Your task to perform on an android device: clear all cookies in the chrome app Image 0: 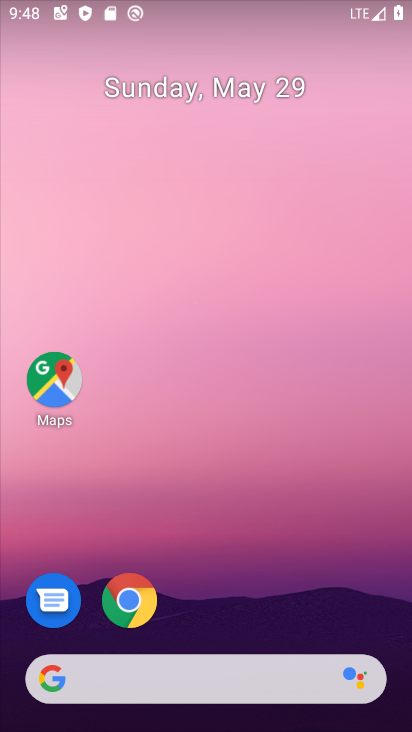
Step 0: drag from (182, 609) to (240, 63)
Your task to perform on an android device: clear all cookies in the chrome app Image 1: 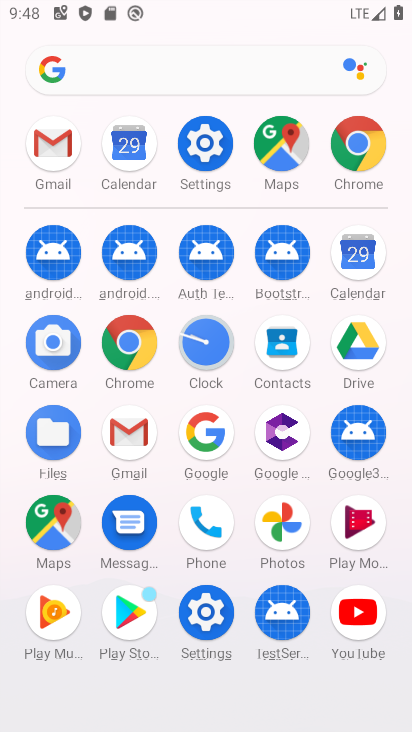
Step 1: click (125, 345)
Your task to perform on an android device: clear all cookies in the chrome app Image 2: 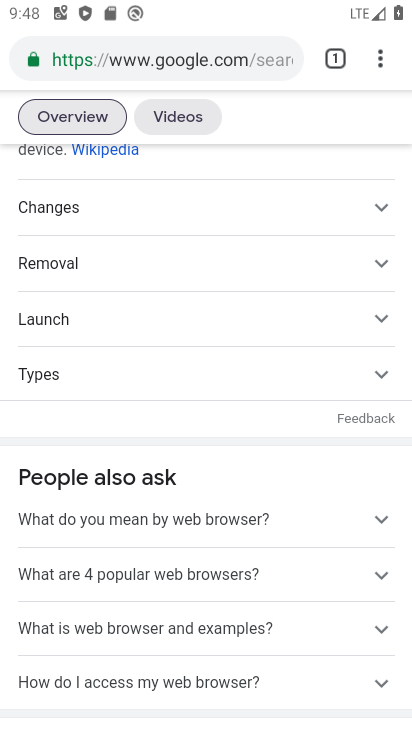
Step 2: drag from (384, 59) to (177, 658)
Your task to perform on an android device: clear all cookies in the chrome app Image 3: 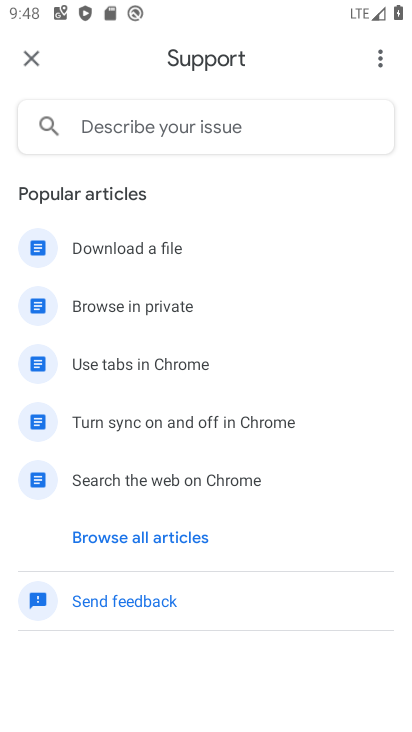
Step 3: press back button
Your task to perform on an android device: clear all cookies in the chrome app Image 4: 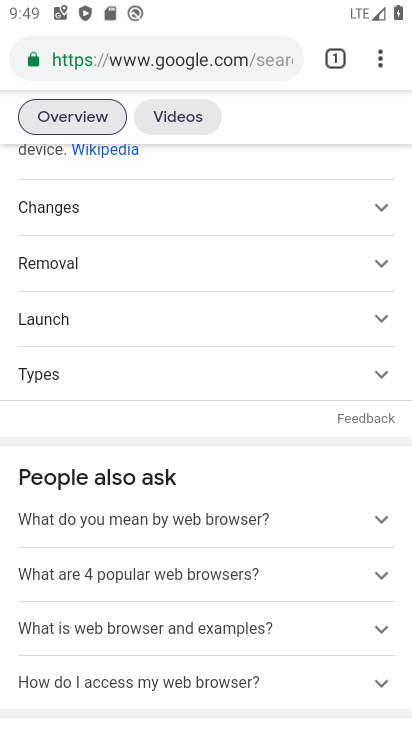
Step 4: drag from (376, 49) to (199, 617)
Your task to perform on an android device: clear all cookies in the chrome app Image 5: 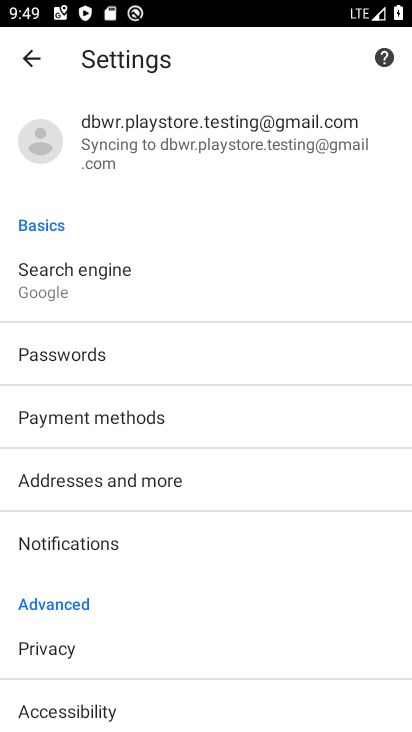
Step 5: click (58, 644)
Your task to perform on an android device: clear all cookies in the chrome app Image 6: 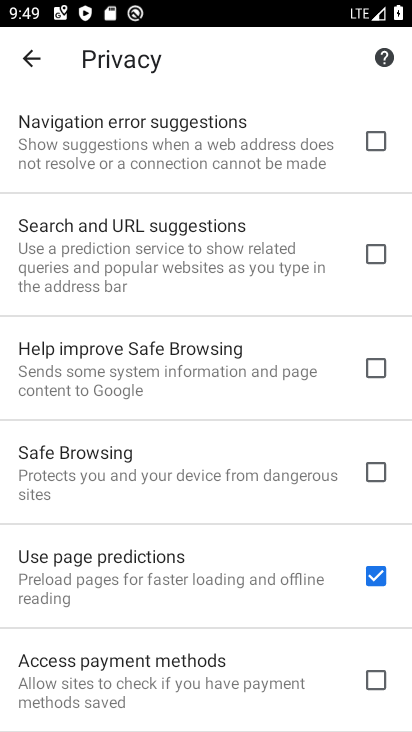
Step 6: drag from (209, 663) to (227, 117)
Your task to perform on an android device: clear all cookies in the chrome app Image 7: 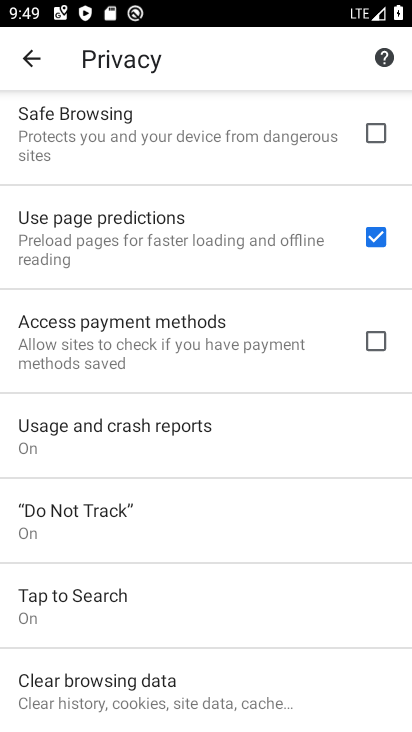
Step 7: click (111, 703)
Your task to perform on an android device: clear all cookies in the chrome app Image 8: 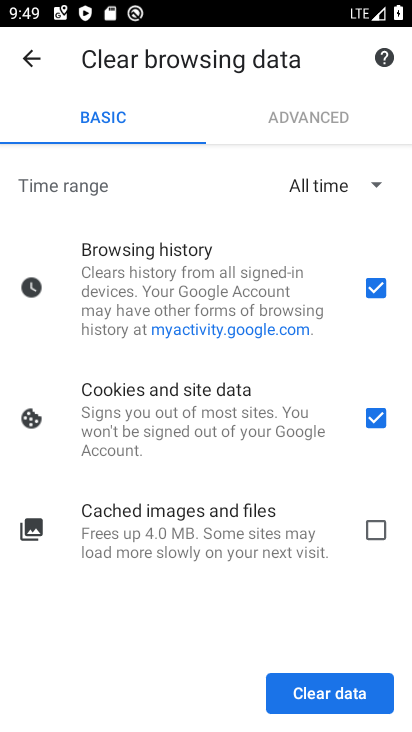
Step 8: click (352, 684)
Your task to perform on an android device: clear all cookies in the chrome app Image 9: 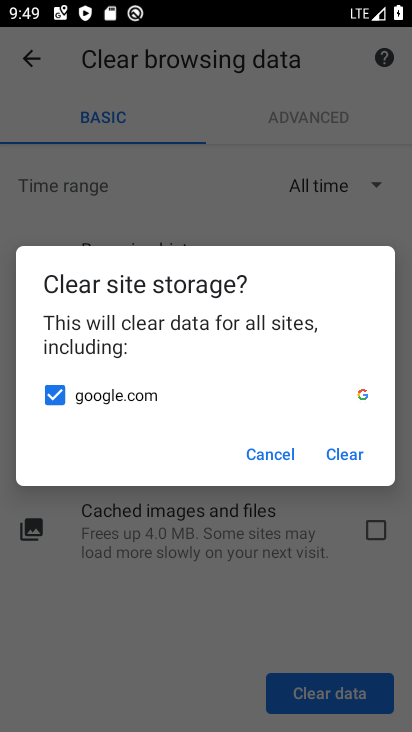
Step 9: click (352, 455)
Your task to perform on an android device: clear all cookies in the chrome app Image 10: 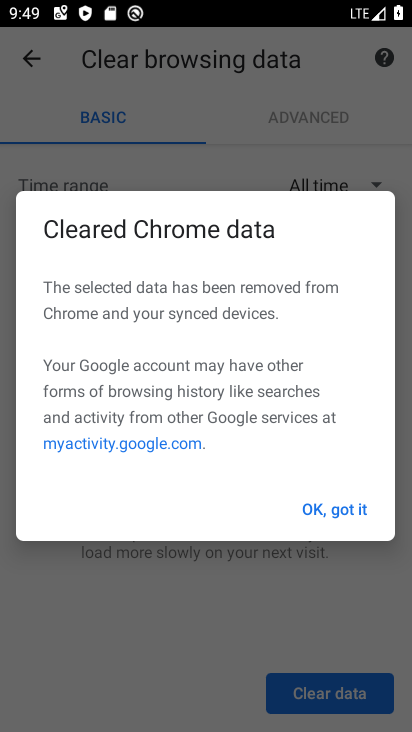
Step 10: click (345, 510)
Your task to perform on an android device: clear all cookies in the chrome app Image 11: 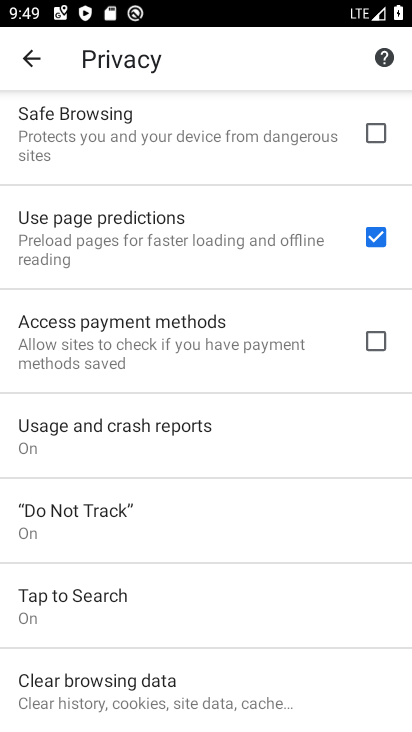
Step 11: task complete